Your task to perform on an android device: Open the map Image 0: 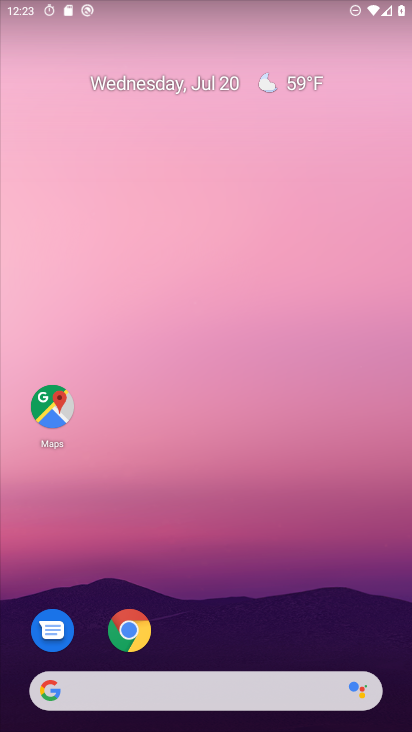
Step 0: drag from (336, 696) to (298, 10)
Your task to perform on an android device: Open the map Image 1: 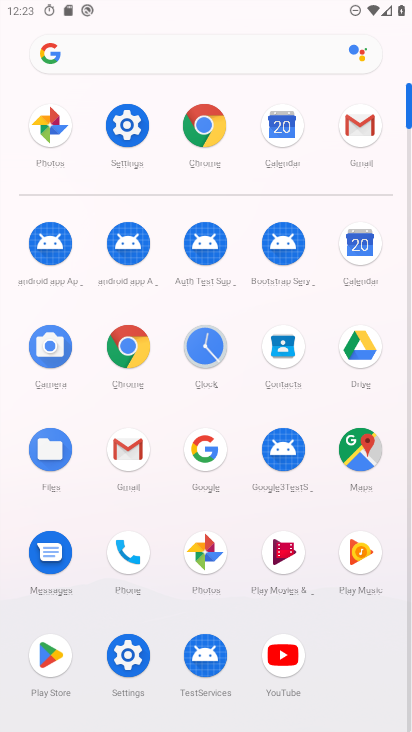
Step 1: click (352, 444)
Your task to perform on an android device: Open the map Image 2: 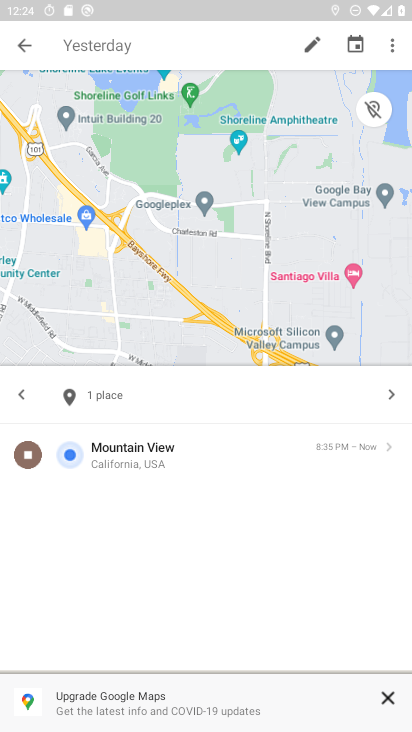
Step 2: task complete